Your task to perform on an android device: turn off javascript in the chrome app Image 0: 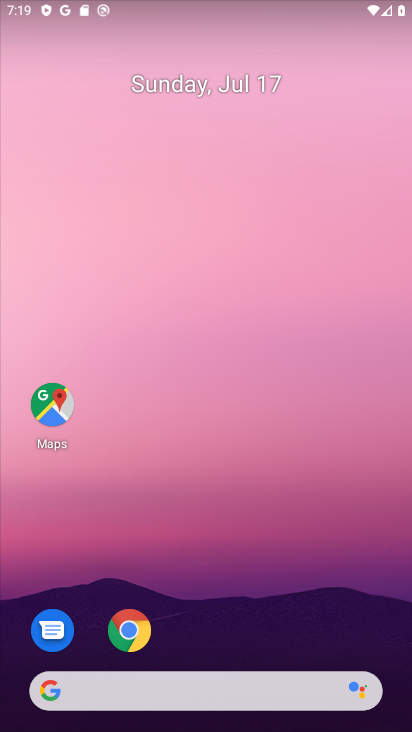
Step 0: click (131, 623)
Your task to perform on an android device: turn off javascript in the chrome app Image 1: 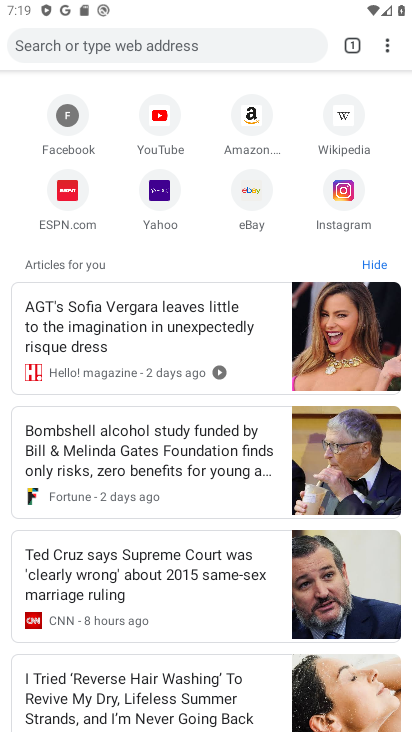
Step 1: click (390, 49)
Your task to perform on an android device: turn off javascript in the chrome app Image 2: 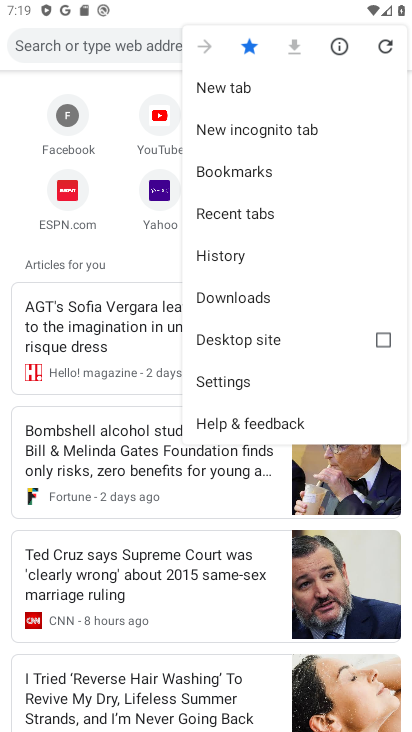
Step 2: click (223, 375)
Your task to perform on an android device: turn off javascript in the chrome app Image 3: 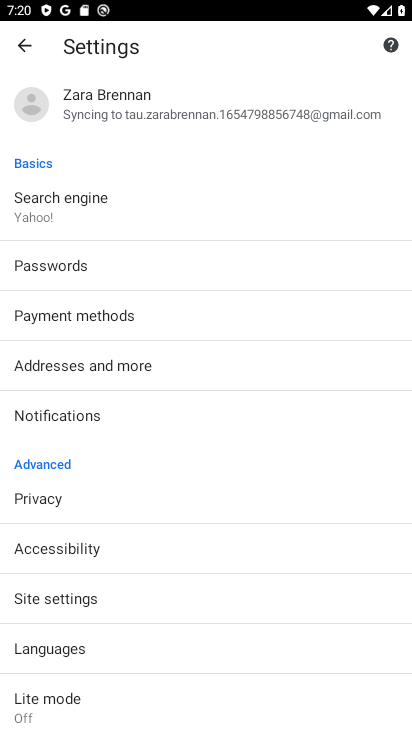
Step 3: click (89, 607)
Your task to perform on an android device: turn off javascript in the chrome app Image 4: 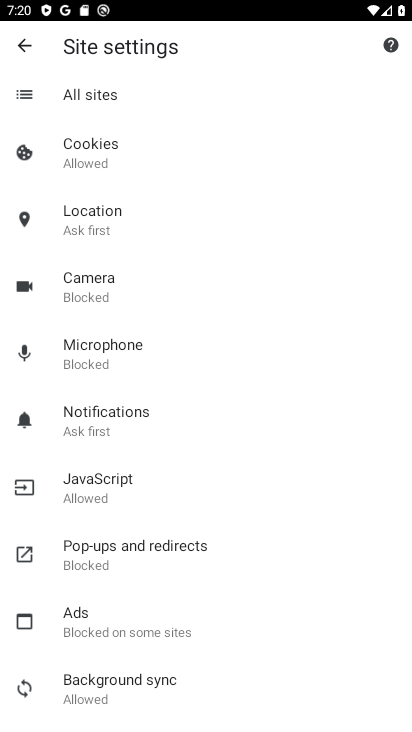
Step 4: click (88, 487)
Your task to perform on an android device: turn off javascript in the chrome app Image 5: 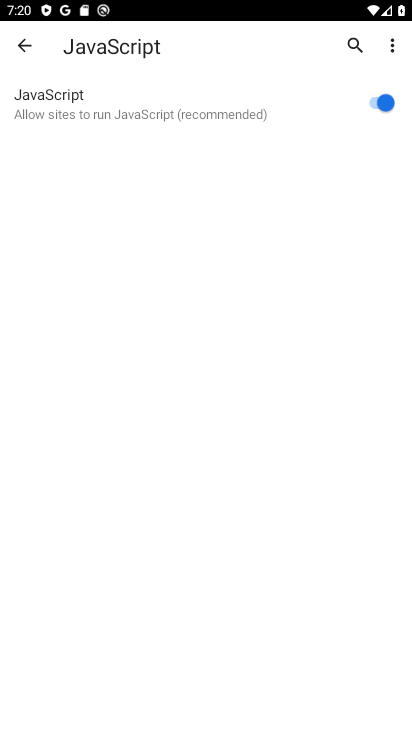
Step 5: click (379, 111)
Your task to perform on an android device: turn off javascript in the chrome app Image 6: 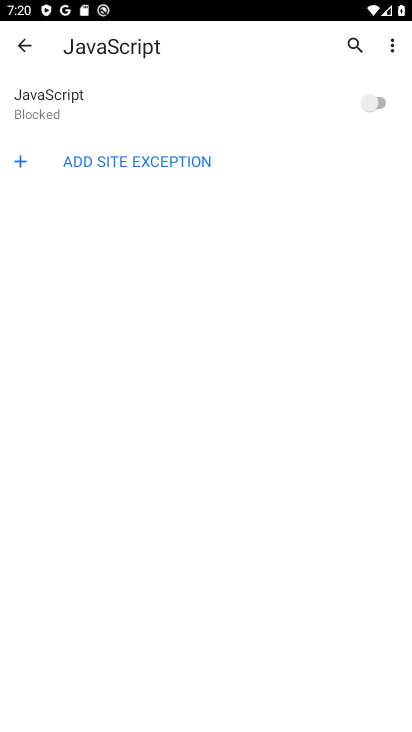
Step 6: task complete